Your task to perform on an android device: open app "Truecaller" Image 0: 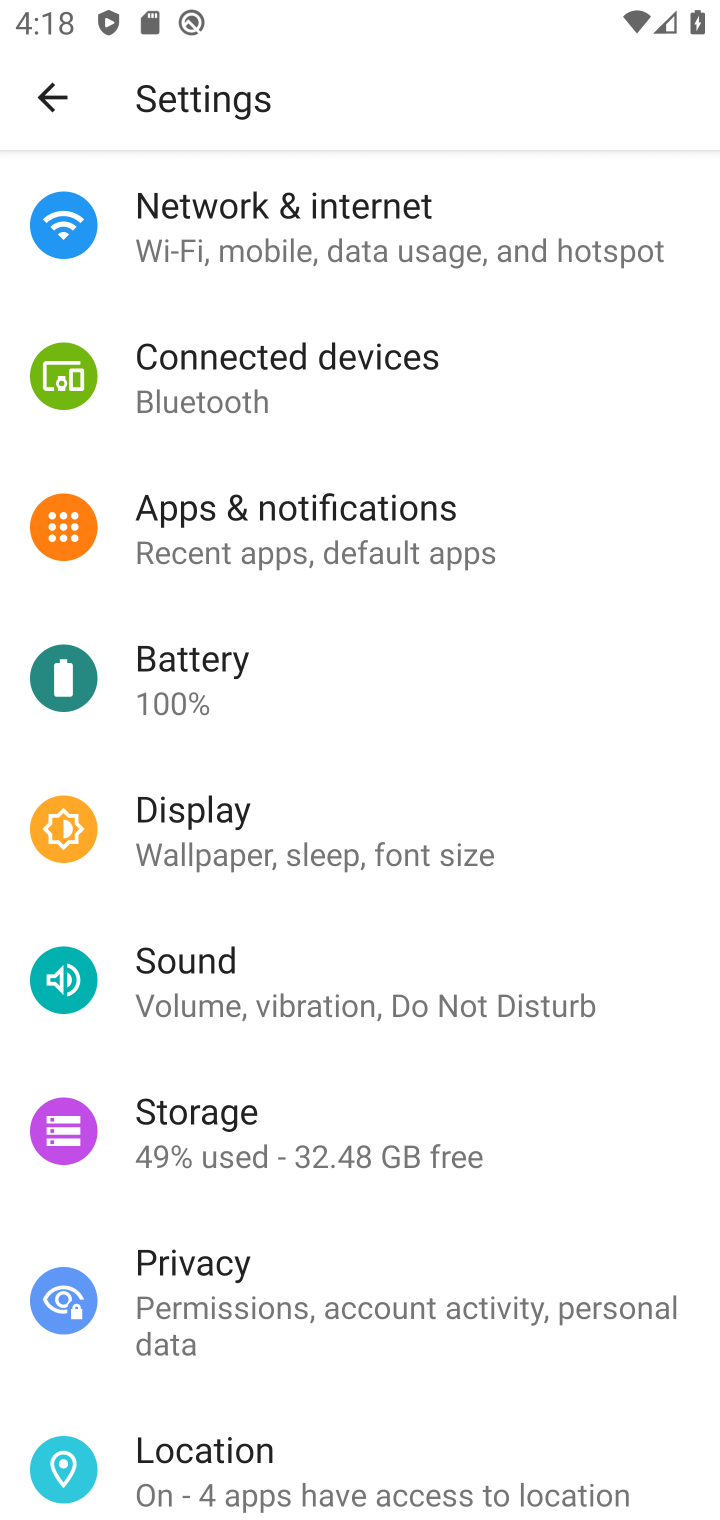
Step 0: press home button
Your task to perform on an android device: open app "Truecaller" Image 1: 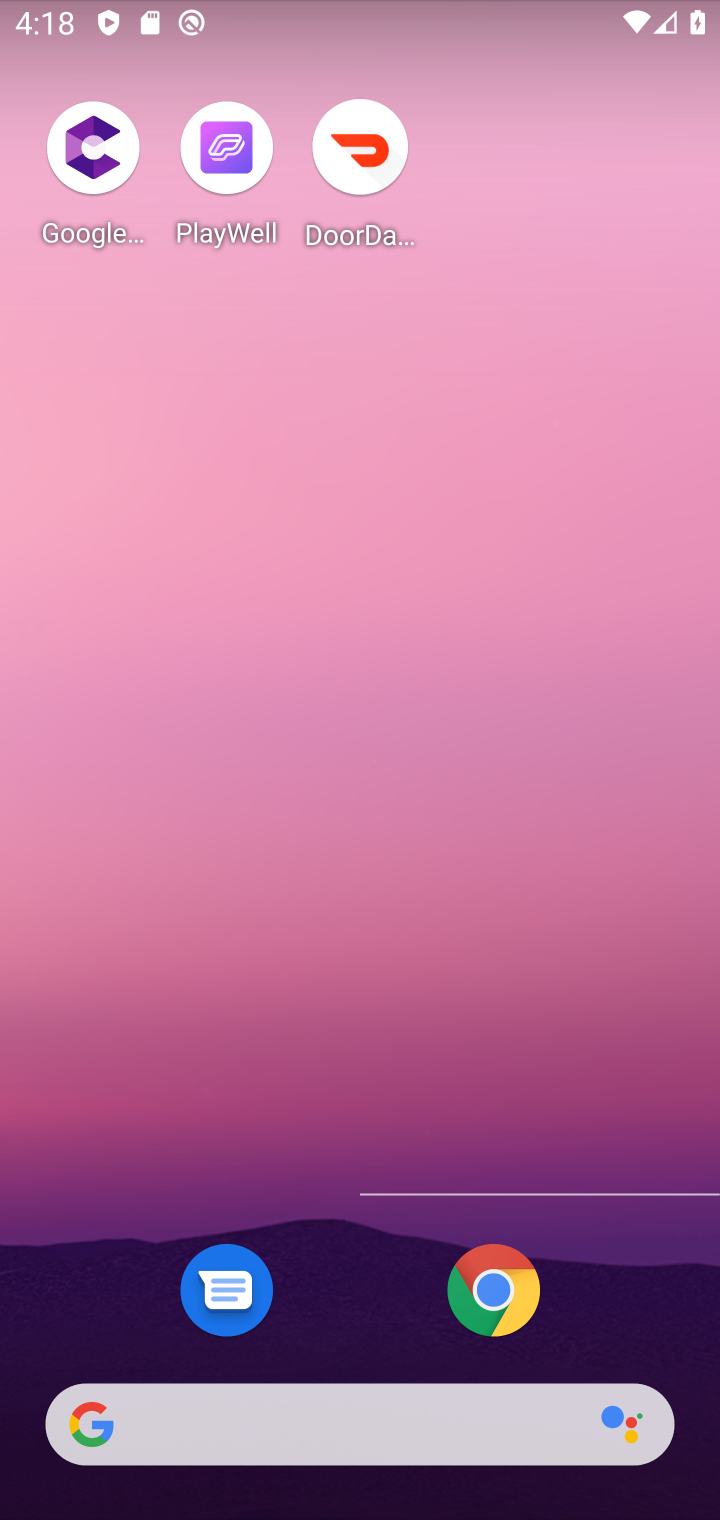
Step 1: drag from (449, 1384) to (564, 18)
Your task to perform on an android device: open app "Truecaller" Image 2: 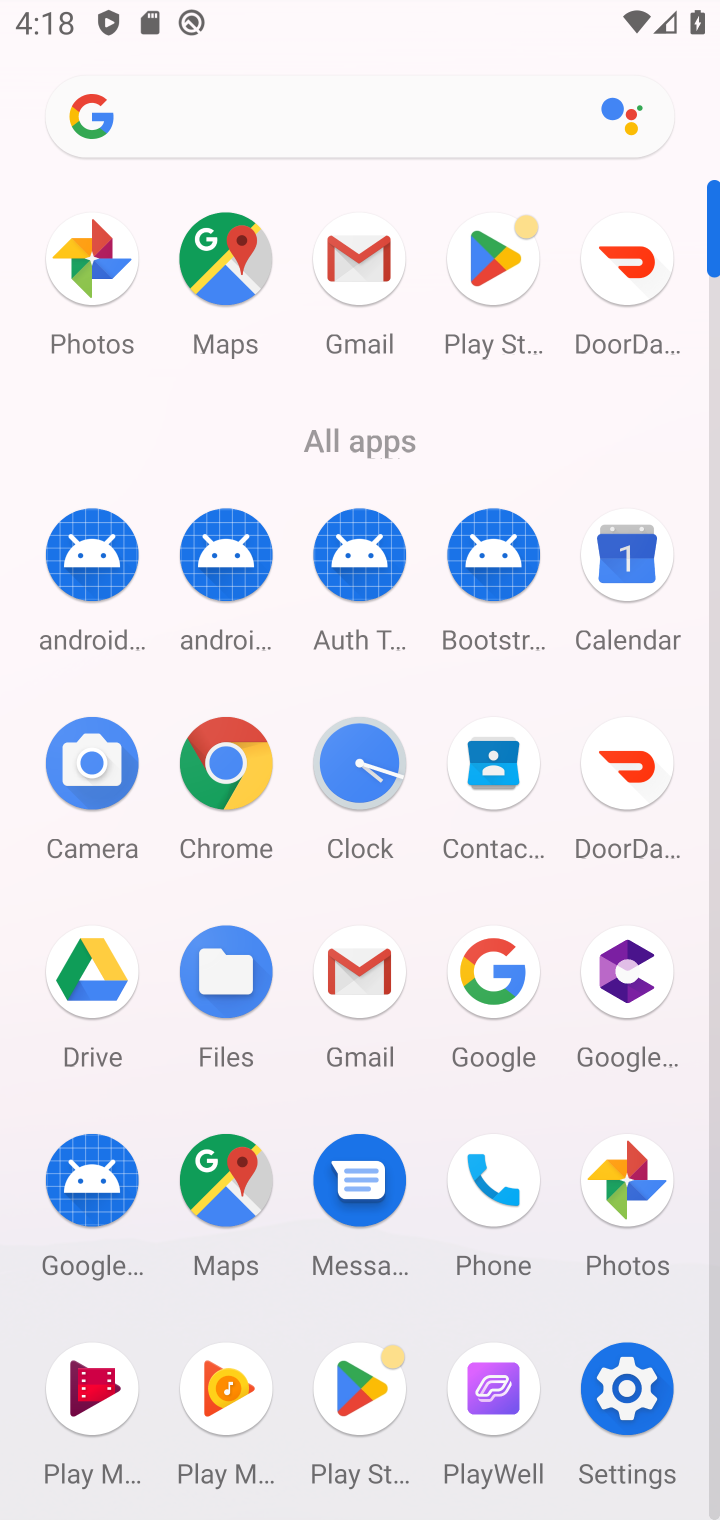
Step 2: drag from (571, 1314) to (545, 839)
Your task to perform on an android device: open app "Truecaller" Image 3: 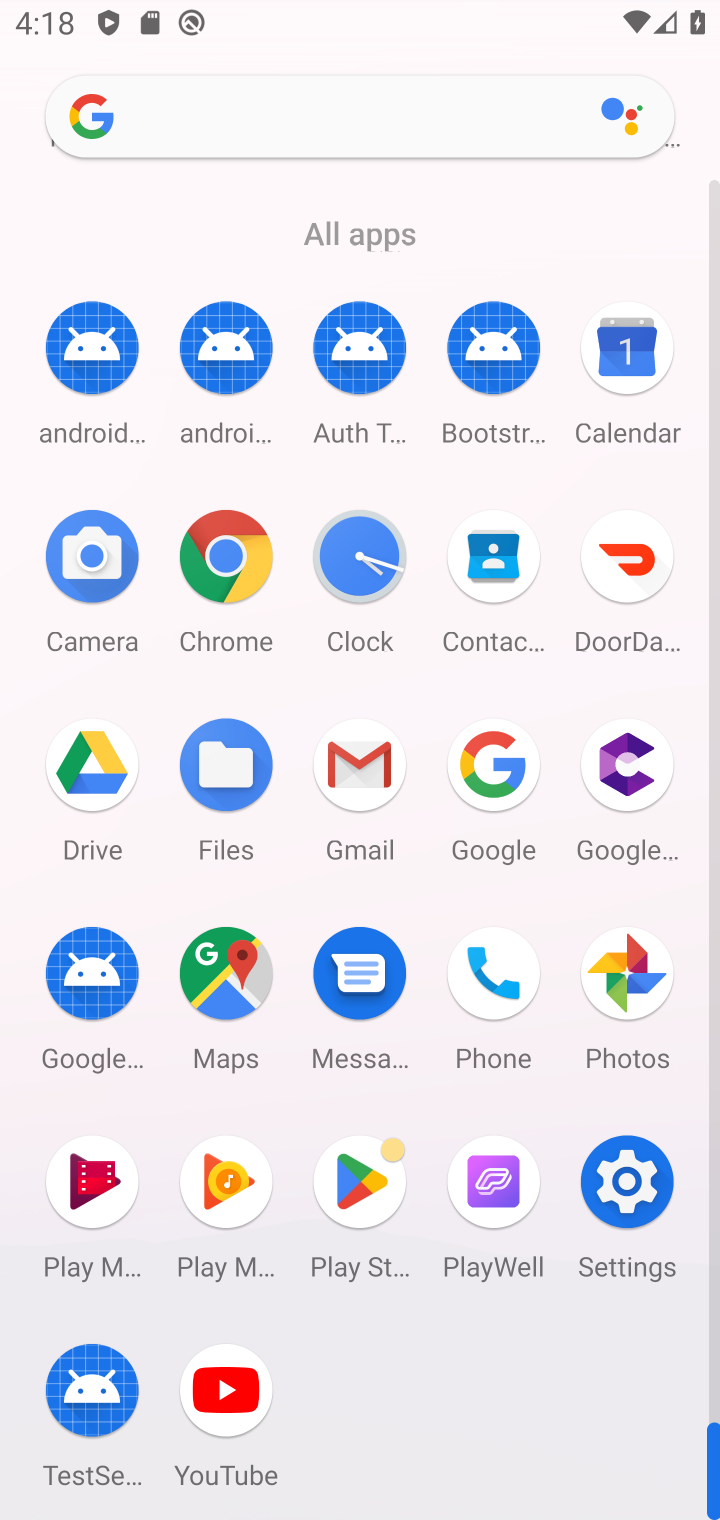
Step 3: click (362, 1167)
Your task to perform on an android device: open app "Truecaller" Image 4: 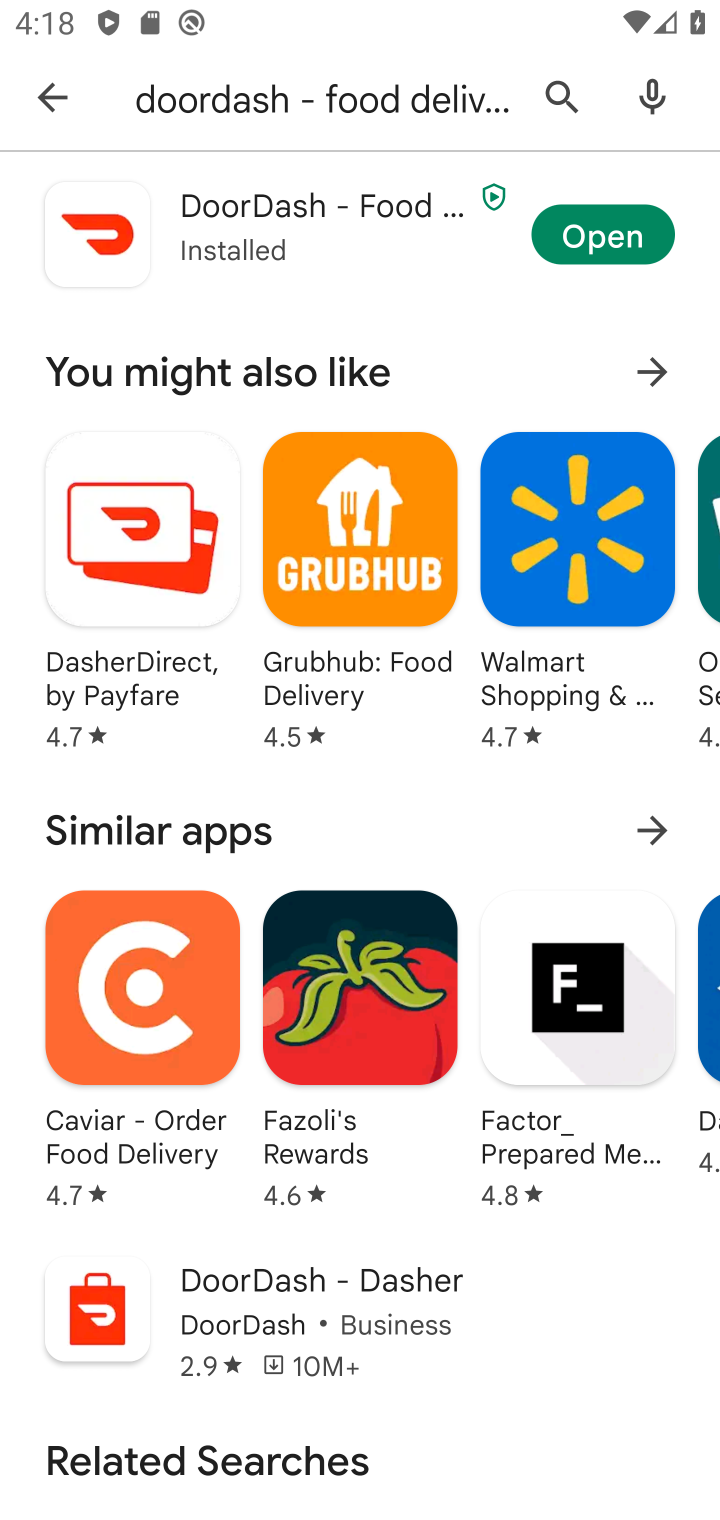
Step 4: click (569, 91)
Your task to perform on an android device: open app "Truecaller" Image 5: 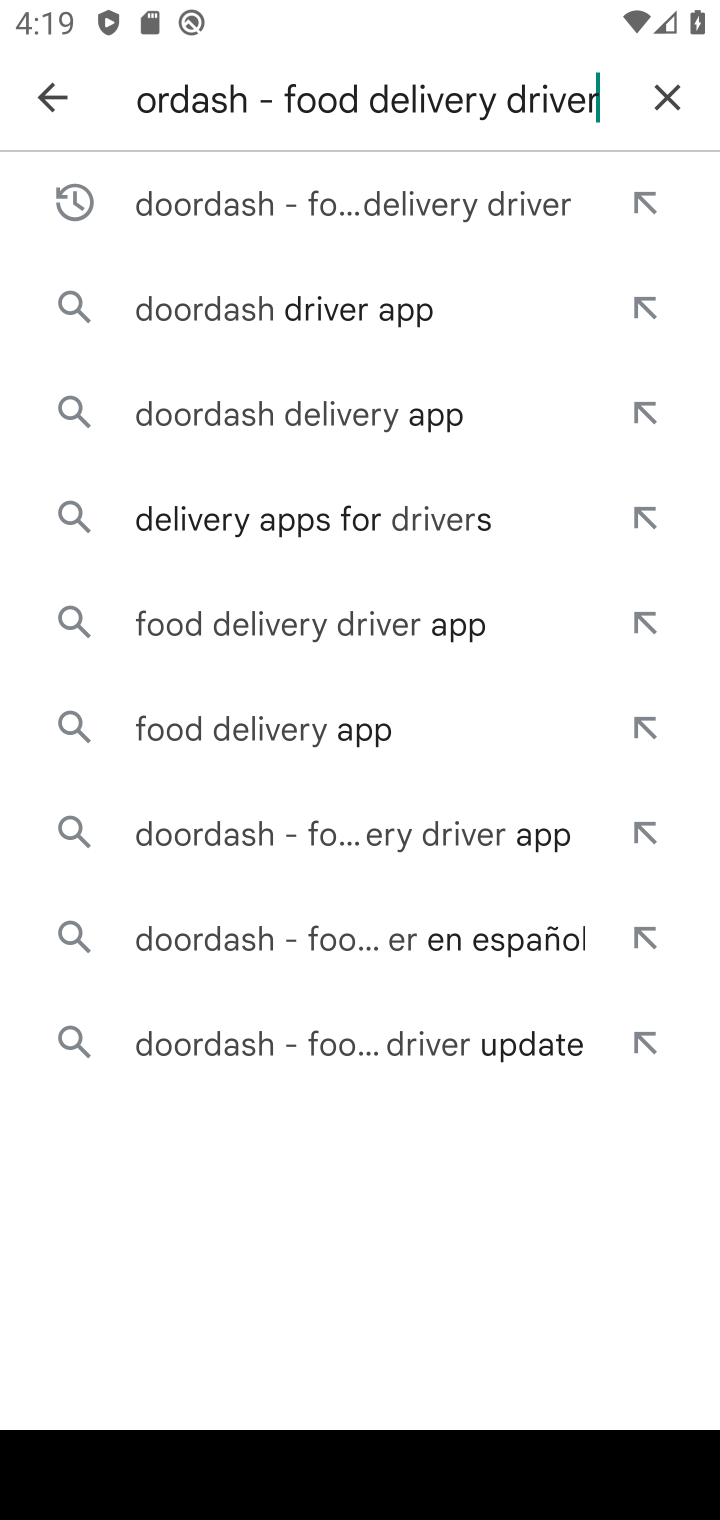
Step 5: click (675, 85)
Your task to perform on an android device: open app "Truecaller" Image 6: 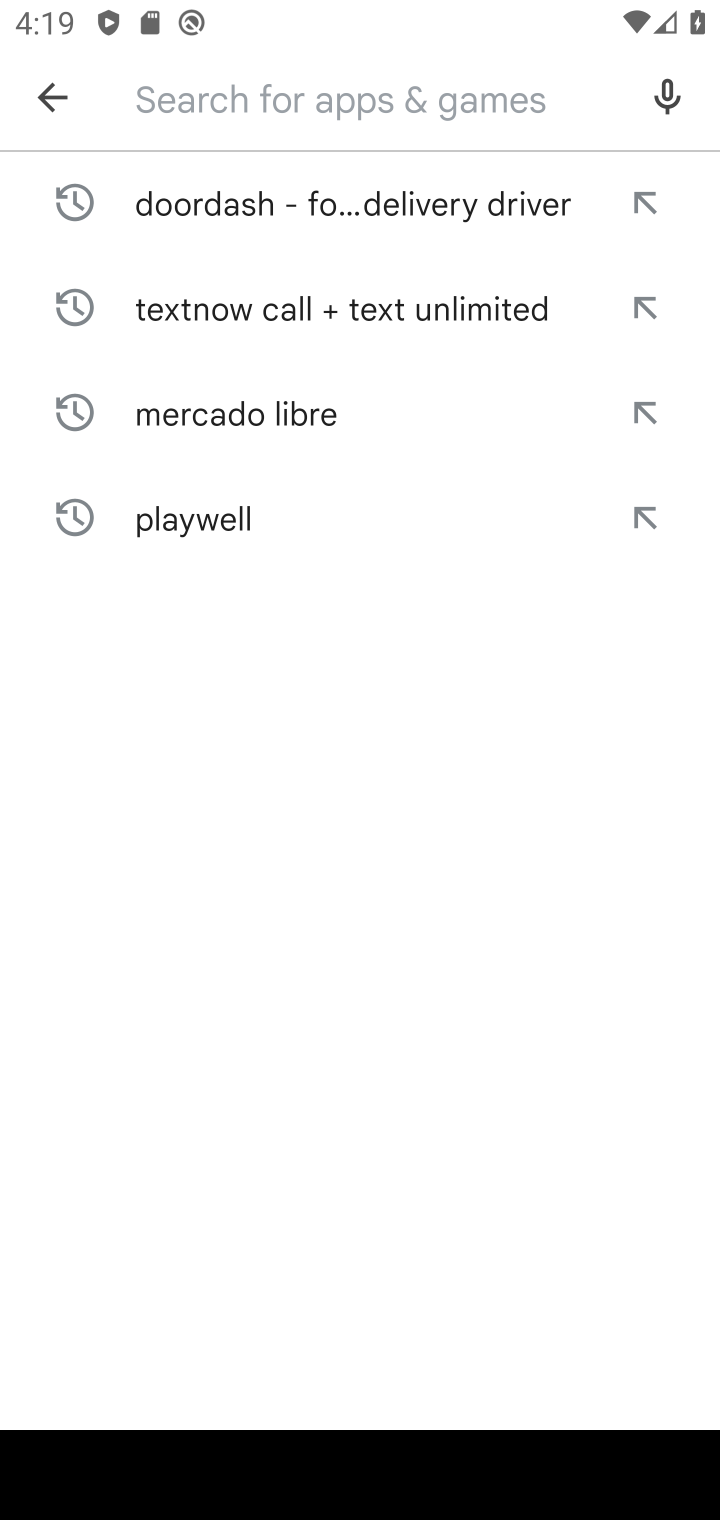
Step 6: type "truecaller"
Your task to perform on an android device: open app "Truecaller" Image 7: 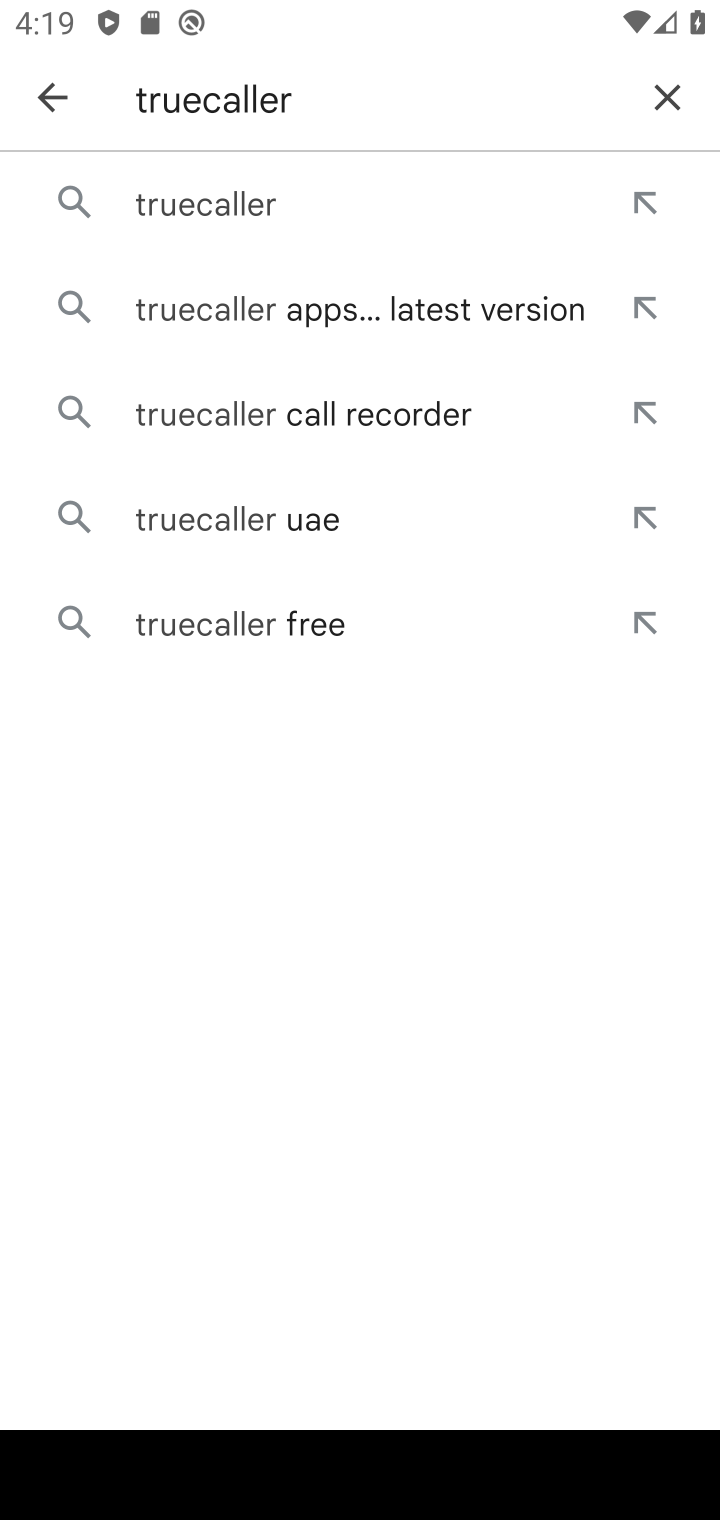
Step 7: click (222, 205)
Your task to perform on an android device: open app "Truecaller" Image 8: 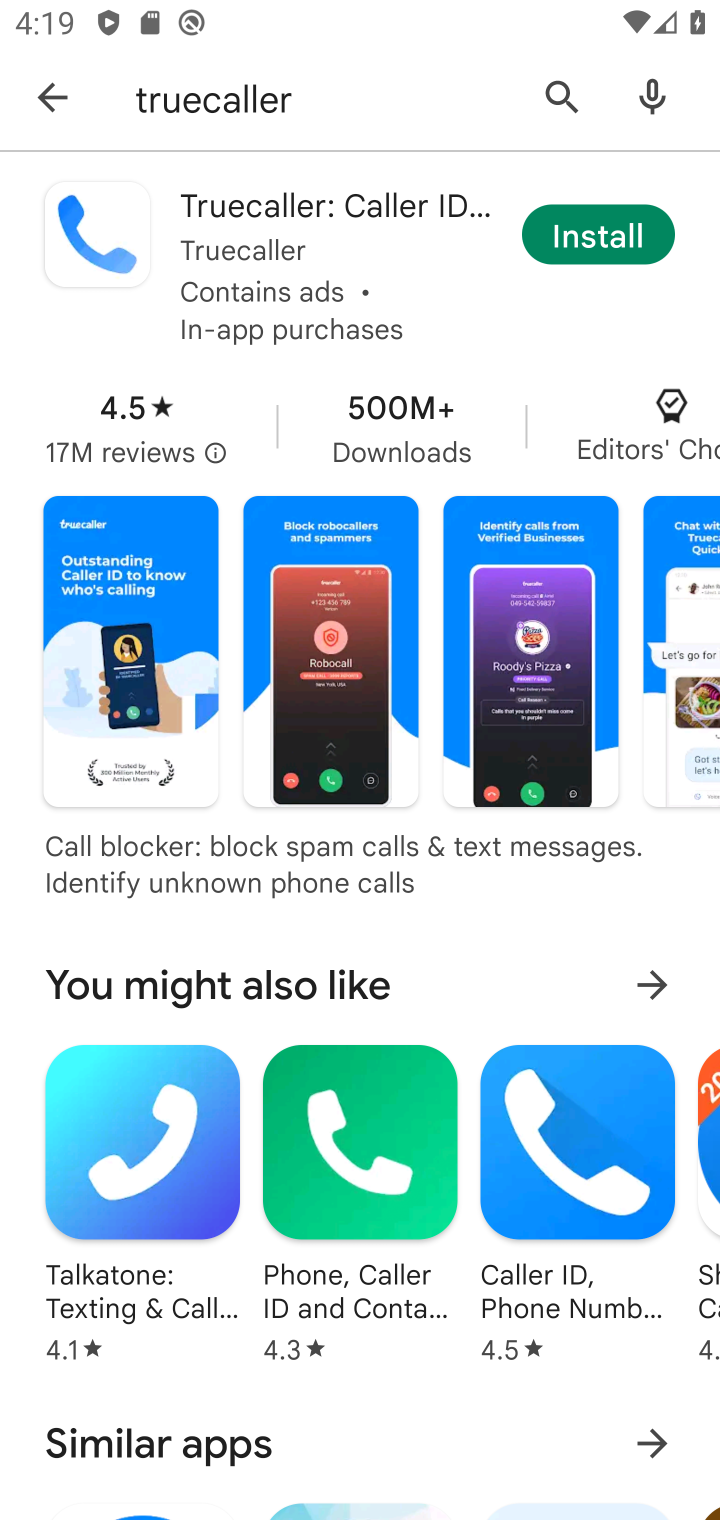
Step 8: task complete